Your task to perform on an android device: Open Google Maps Image 0: 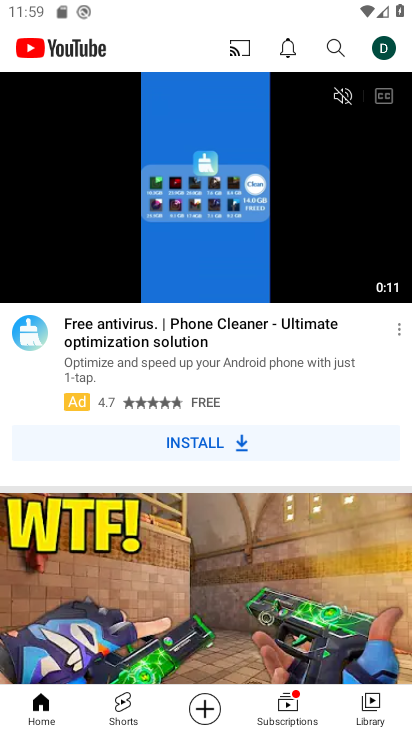
Step 0: drag from (216, 570) to (298, 90)
Your task to perform on an android device: Open Google Maps Image 1: 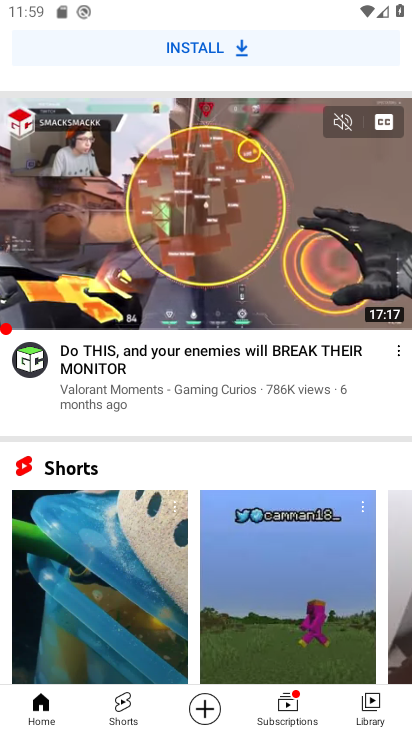
Step 1: drag from (229, 606) to (296, 267)
Your task to perform on an android device: Open Google Maps Image 2: 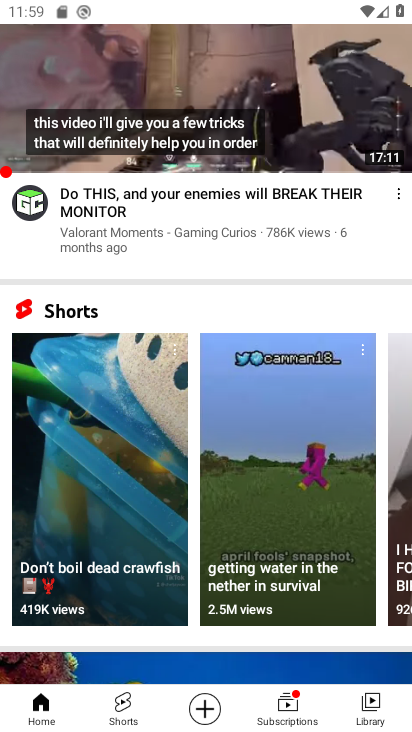
Step 2: drag from (278, 361) to (396, 606)
Your task to perform on an android device: Open Google Maps Image 3: 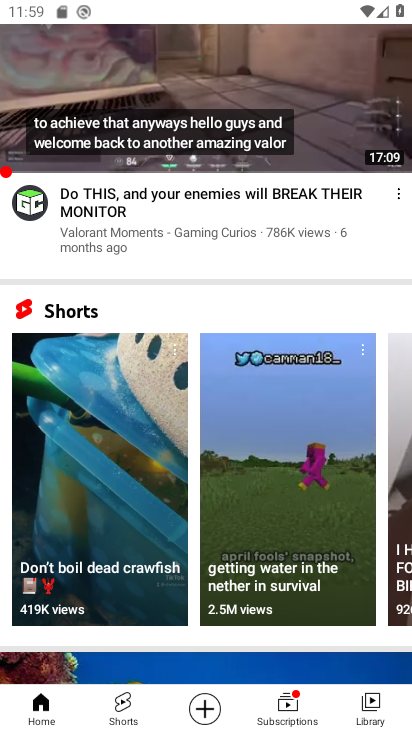
Step 3: press home button
Your task to perform on an android device: Open Google Maps Image 4: 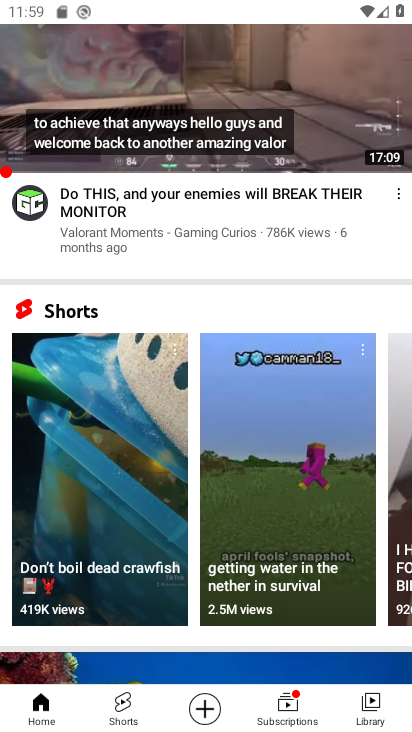
Step 4: click (393, 326)
Your task to perform on an android device: Open Google Maps Image 5: 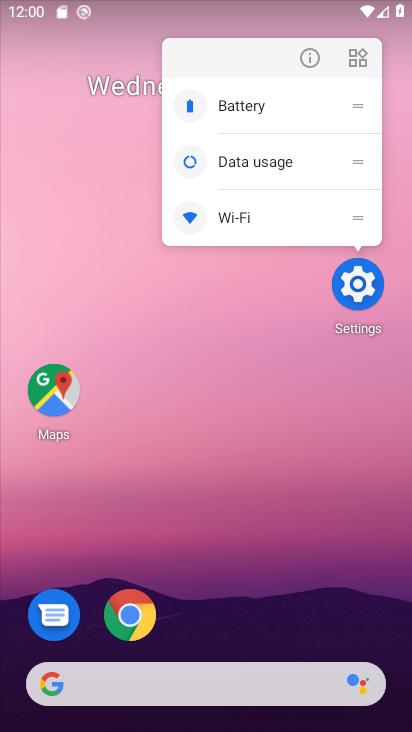
Step 5: click (59, 366)
Your task to perform on an android device: Open Google Maps Image 6: 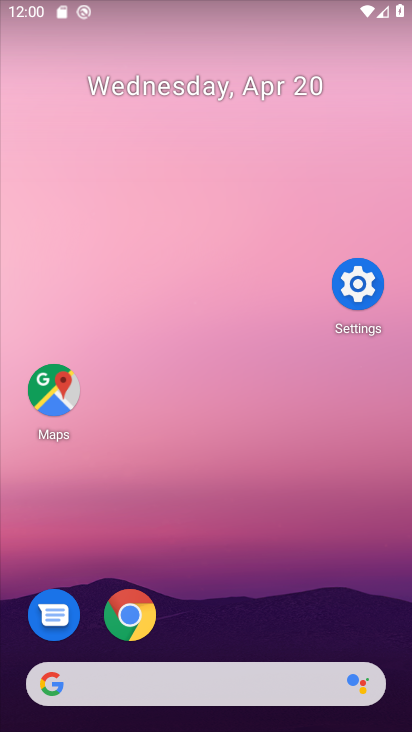
Step 6: click (42, 395)
Your task to perform on an android device: Open Google Maps Image 7: 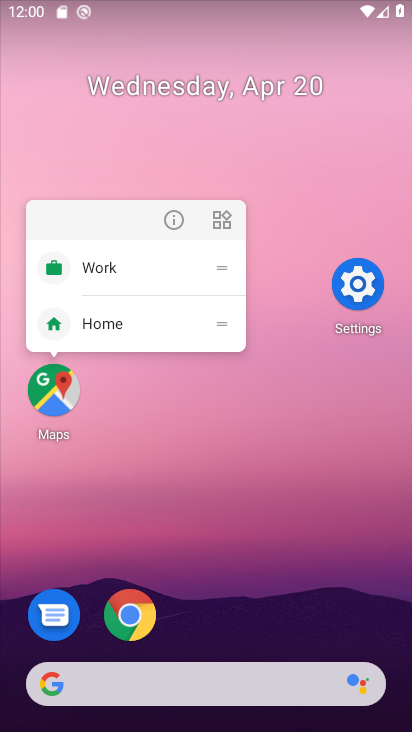
Step 7: click (176, 203)
Your task to perform on an android device: Open Google Maps Image 8: 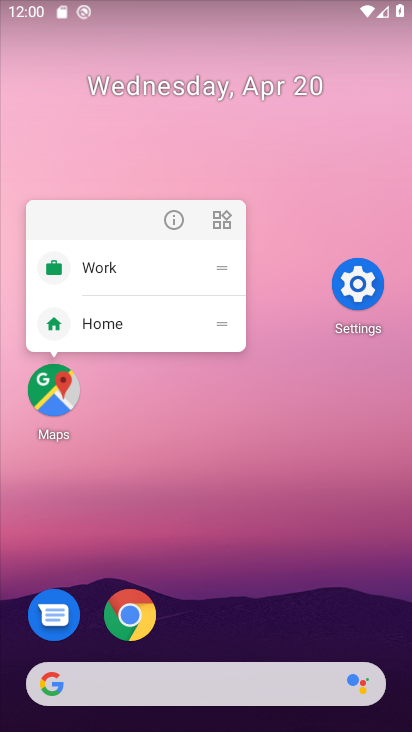
Step 8: click (170, 208)
Your task to perform on an android device: Open Google Maps Image 9: 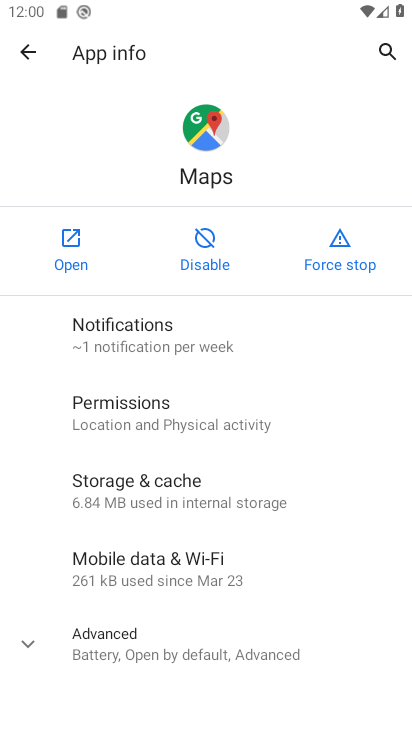
Step 9: click (46, 263)
Your task to perform on an android device: Open Google Maps Image 10: 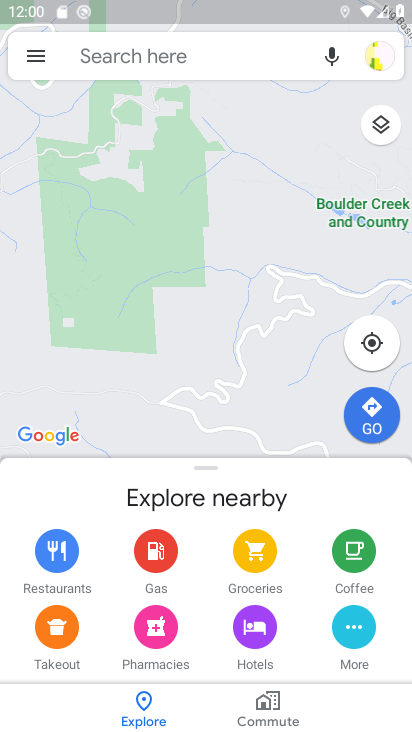
Step 10: task complete